Your task to perform on an android device: Go to display settings Image 0: 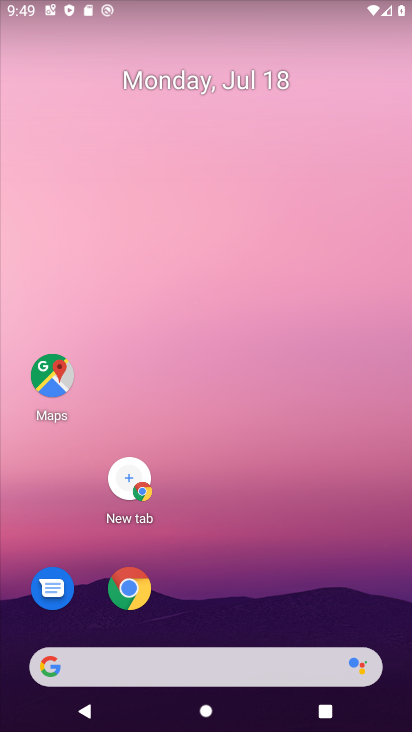
Step 0: drag from (250, 572) to (141, 214)
Your task to perform on an android device: Go to display settings Image 1: 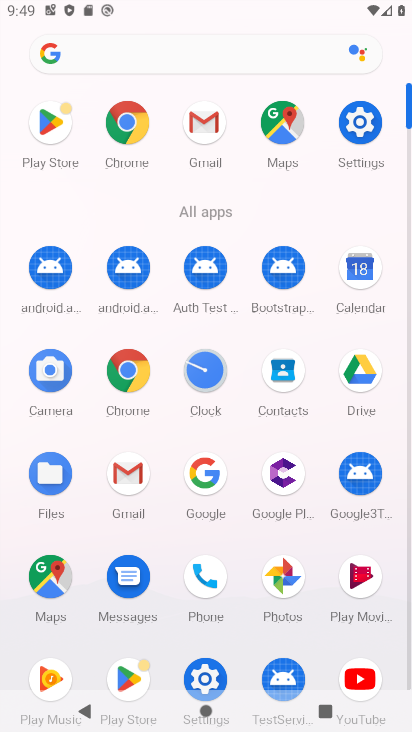
Step 1: click (365, 105)
Your task to perform on an android device: Go to display settings Image 2: 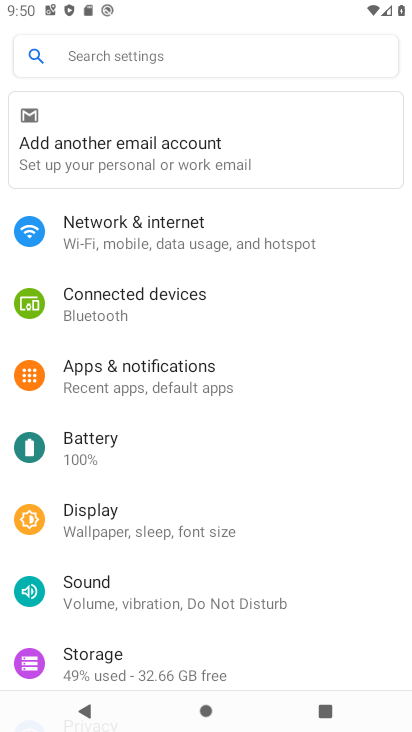
Step 2: click (148, 525)
Your task to perform on an android device: Go to display settings Image 3: 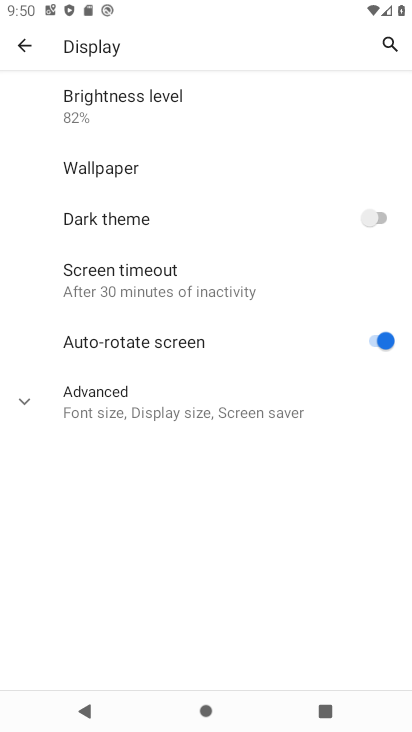
Step 3: task complete